Your task to perform on an android device: toggle wifi Image 0: 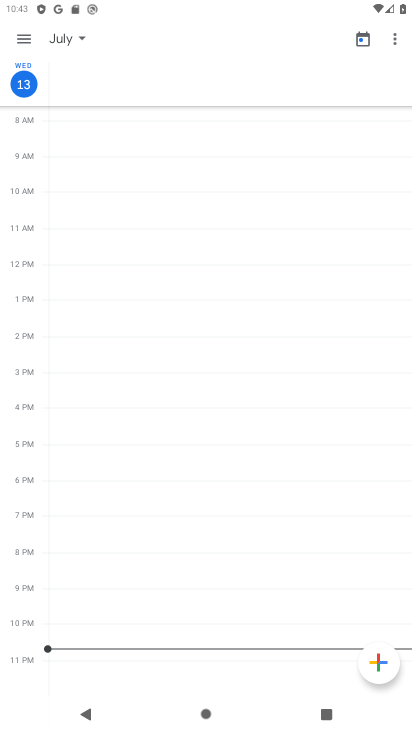
Step 0: press home button
Your task to perform on an android device: toggle wifi Image 1: 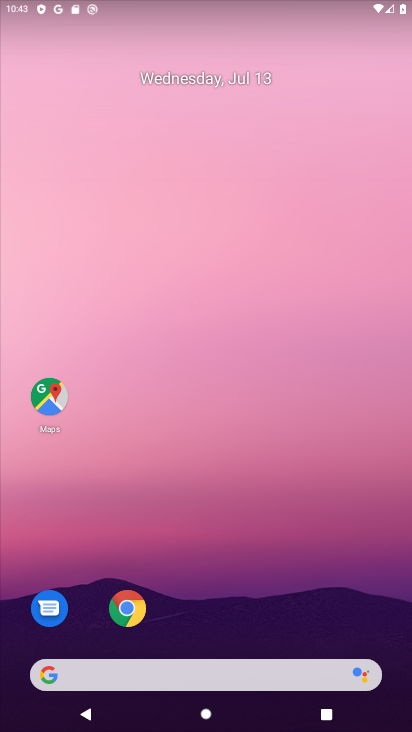
Step 1: drag from (287, 583) to (308, 41)
Your task to perform on an android device: toggle wifi Image 2: 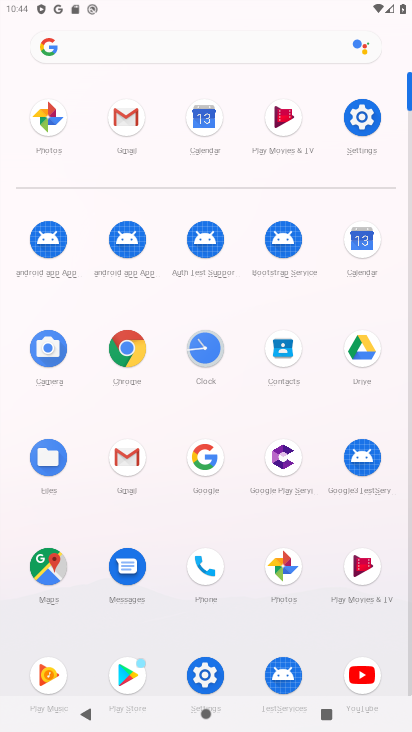
Step 2: click (370, 111)
Your task to perform on an android device: toggle wifi Image 3: 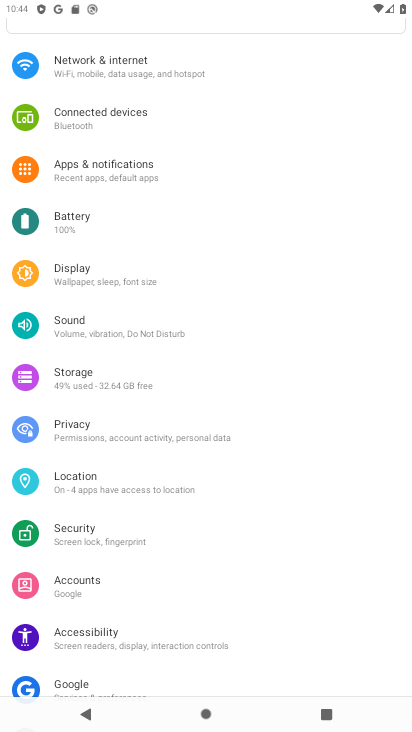
Step 3: click (108, 71)
Your task to perform on an android device: toggle wifi Image 4: 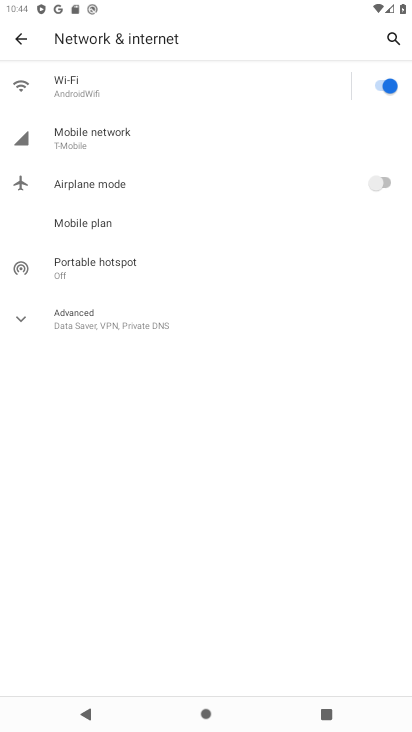
Step 4: click (117, 87)
Your task to perform on an android device: toggle wifi Image 5: 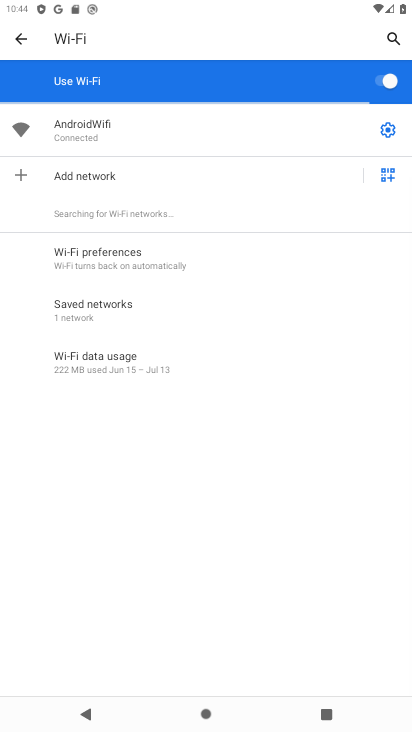
Step 5: click (386, 80)
Your task to perform on an android device: toggle wifi Image 6: 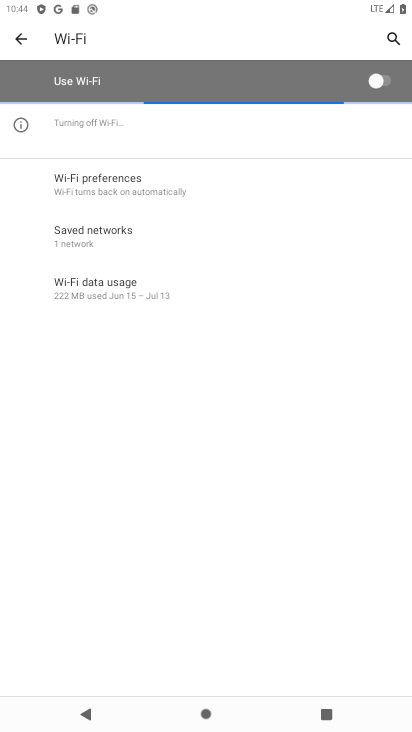
Step 6: task complete